Your task to perform on an android device: Go to Google Image 0: 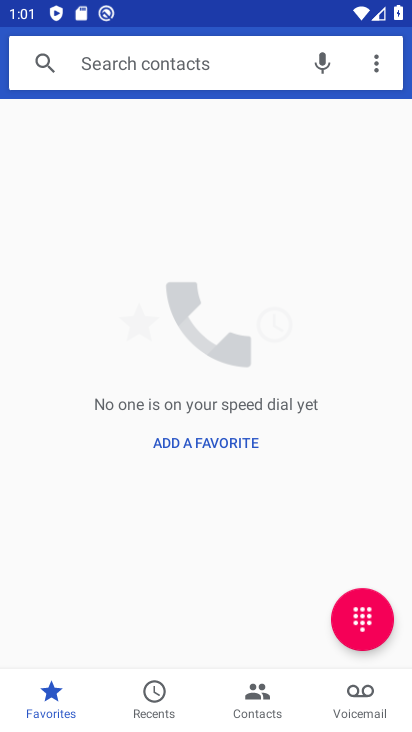
Step 0: press home button
Your task to perform on an android device: Go to Google Image 1: 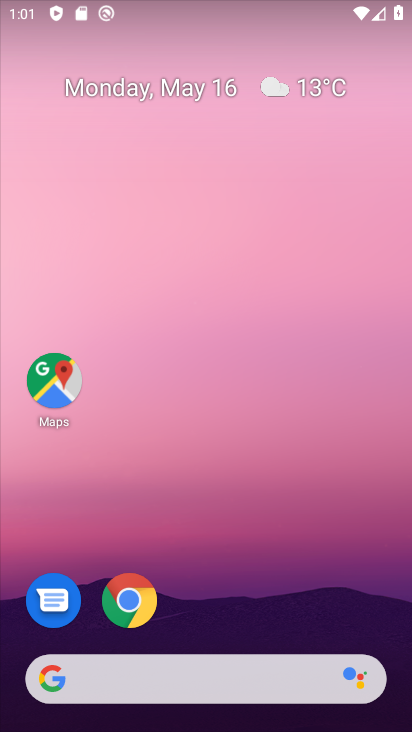
Step 1: drag from (205, 616) to (51, 62)
Your task to perform on an android device: Go to Google Image 2: 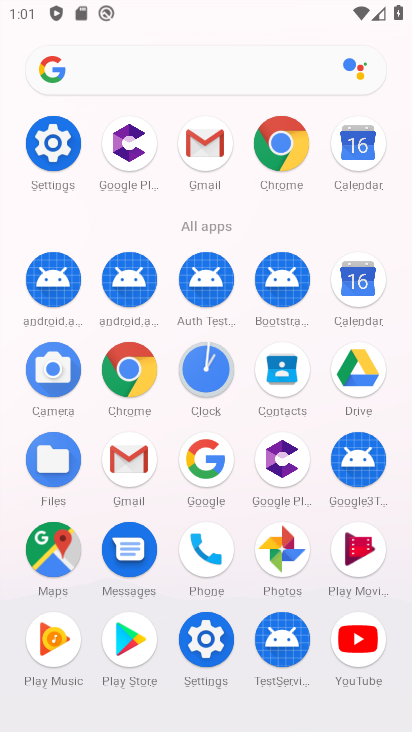
Step 2: click (205, 470)
Your task to perform on an android device: Go to Google Image 3: 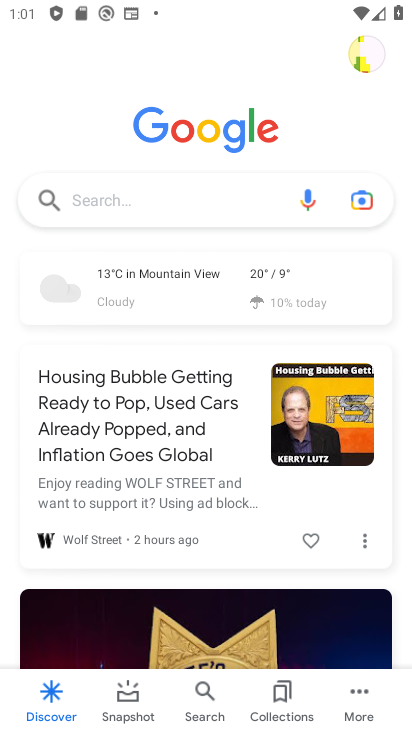
Step 3: task complete